Your task to perform on an android device: See recent photos Image 0: 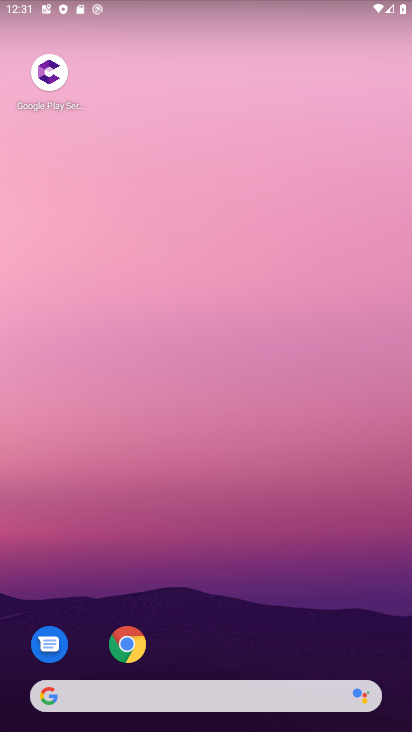
Step 0: drag from (239, 641) to (325, 99)
Your task to perform on an android device: See recent photos Image 1: 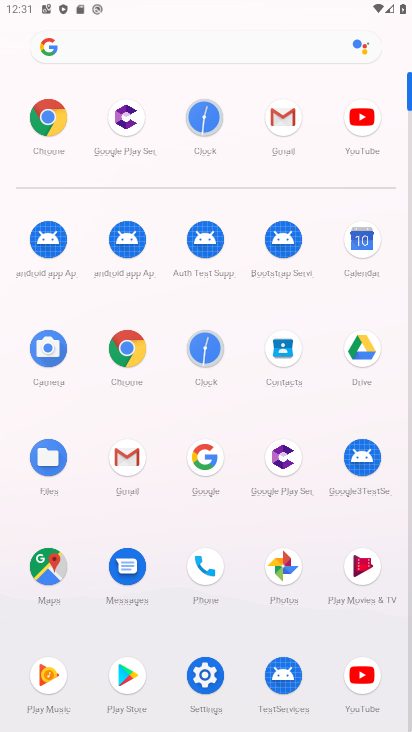
Step 1: click (287, 575)
Your task to perform on an android device: See recent photos Image 2: 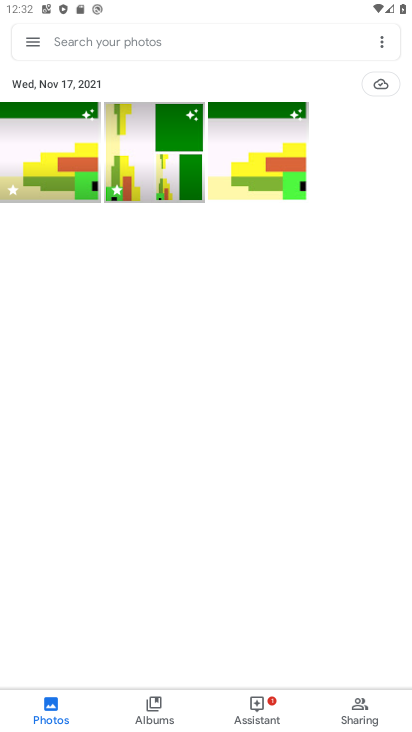
Step 2: task complete